Your task to perform on an android device: turn off sleep mode Image 0: 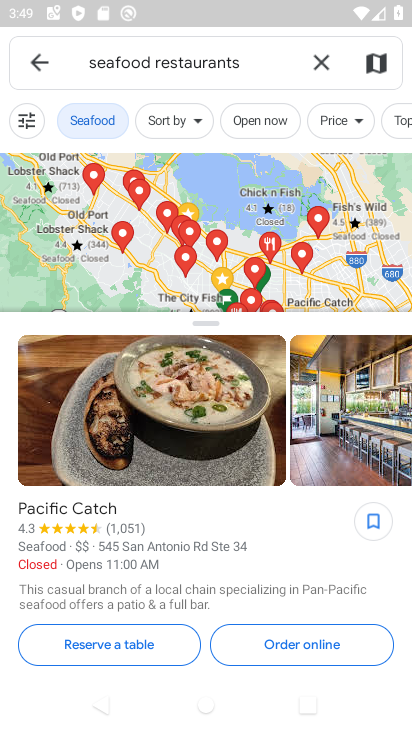
Step 0: press home button
Your task to perform on an android device: turn off sleep mode Image 1: 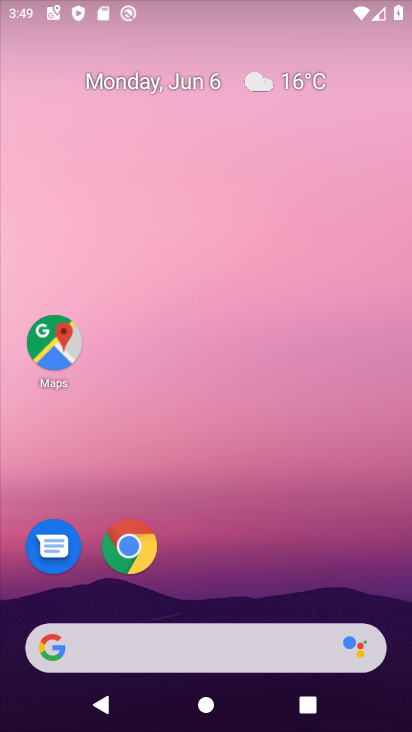
Step 1: drag from (316, 513) to (374, 5)
Your task to perform on an android device: turn off sleep mode Image 2: 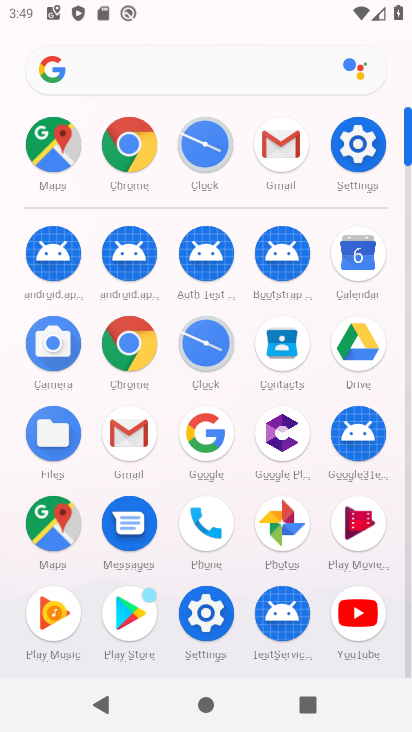
Step 2: click (365, 136)
Your task to perform on an android device: turn off sleep mode Image 3: 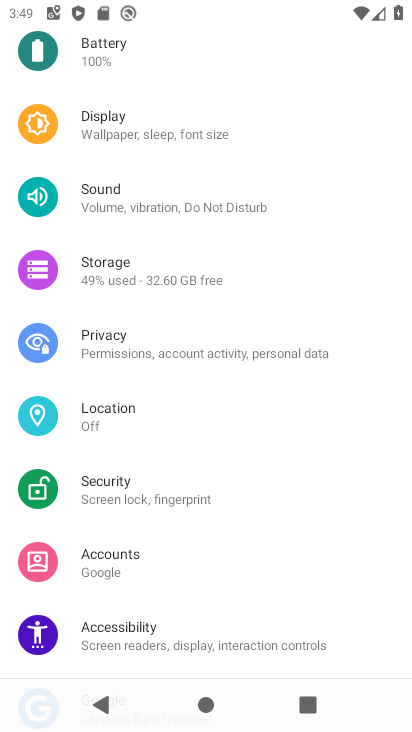
Step 3: drag from (249, 248) to (210, 662)
Your task to perform on an android device: turn off sleep mode Image 4: 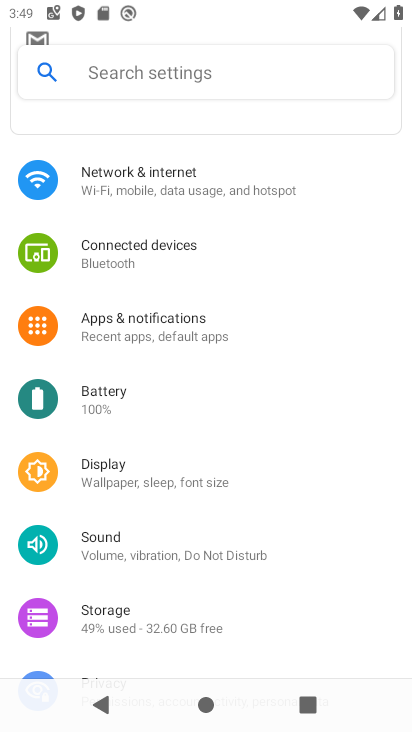
Step 4: drag from (282, 343) to (267, 682)
Your task to perform on an android device: turn off sleep mode Image 5: 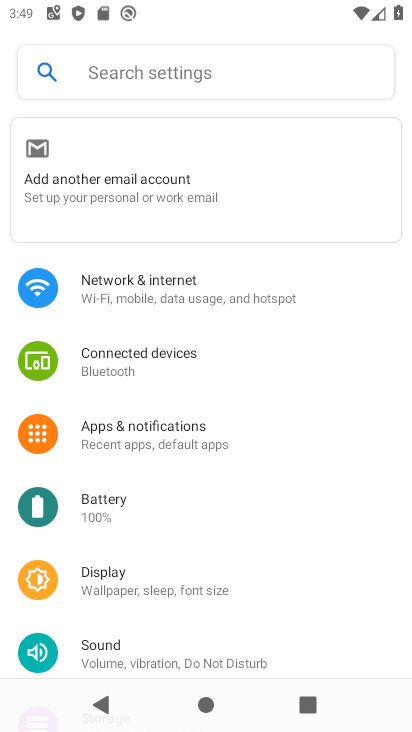
Step 5: drag from (278, 662) to (357, 106)
Your task to perform on an android device: turn off sleep mode Image 6: 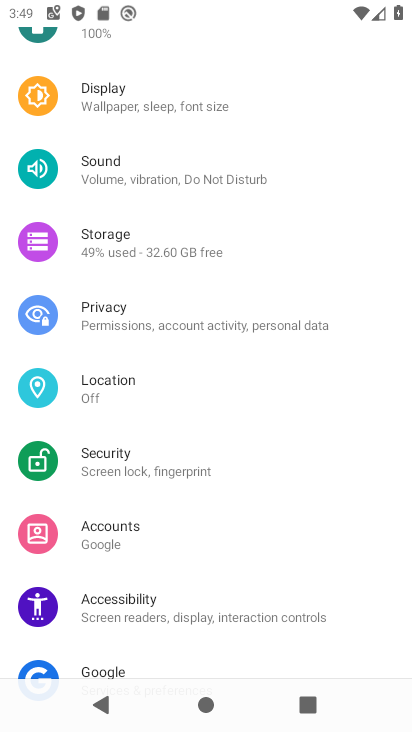
Step 6: click (143, 121)
Your task to perform on an android device: turn off sleep mode Image 7: 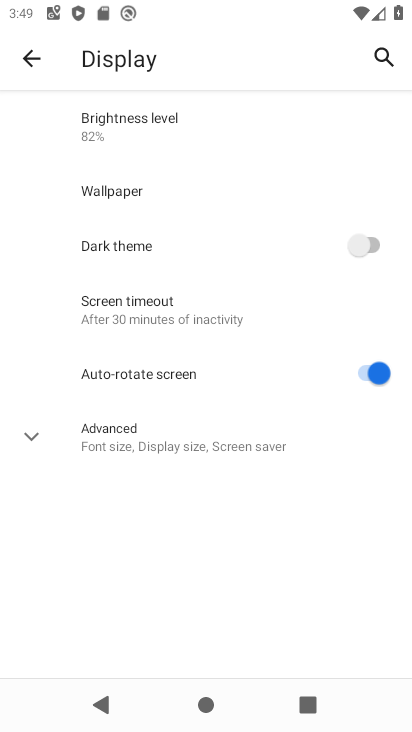
Step 7: click (169, 322)
Your task to perform on an android device: turn off sleep mode Image 8: 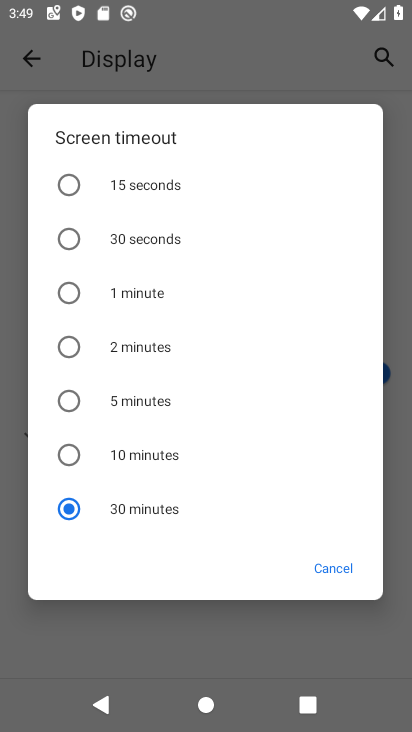
Step 8: task complete